Your task to perform on an android device: Clear the shopping cart on target.com. Search for jbl flip 4 on target.com, select the first entry, add it to the cart, then select checkout. Image 0: 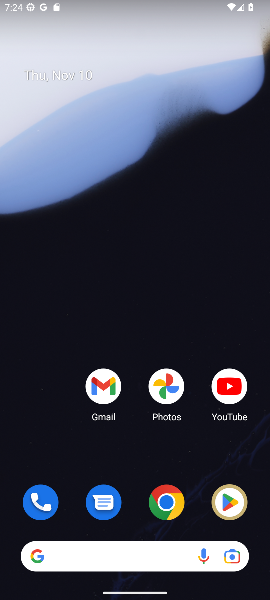
Step 0: click (97, 561)
Your task to perform on an android device: Clear the shopping cart on target.com. Search for jbl flip 4 on target.com, select the first entry, add it to the cart, then select checkout. Image 1: 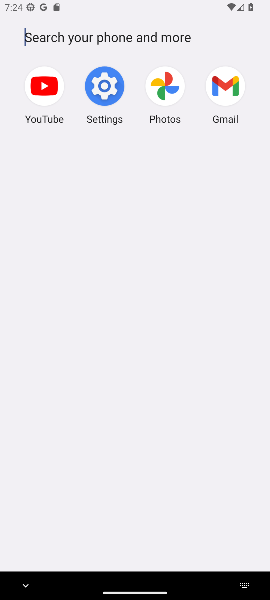
Step 1: press home button
Your task to perform on an android device: Clear the shopping cart on target.com. Search for jbl flip 4 on target.com, select the first entry, add it to the cart, then select checkout. Image 2: 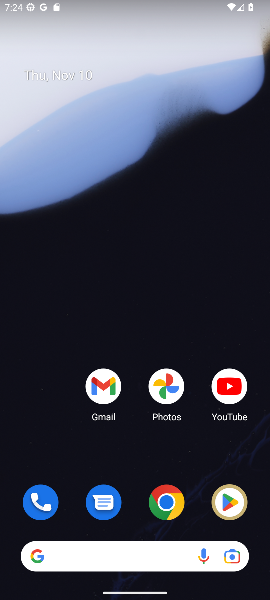
Step 2: drag from (130, 484) to (134, 99)
Your task to perform on an android device: Clear the shopping cart on target.com. Search for jbl flip 4 on target.com, select the first entry, add it to the cart, then select checkout. Image 3: 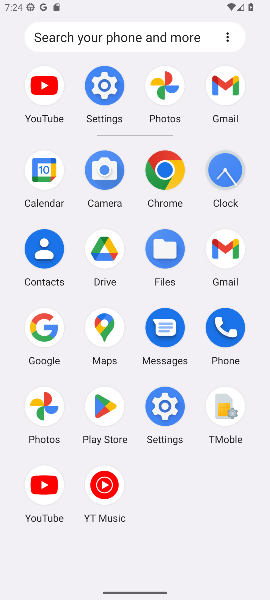
Step 3: click (38, 340)
Your task to perform on an android device: Clear the shopping cart on target.com. Search for jbl flip 4 on target.com, select the first entry, add it to the cart, then select checkout. Image 4: 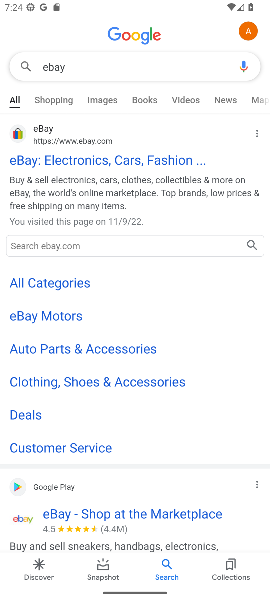
Step 4: click (92, 55)
Your task to perform on an android device: Clear the shopping cart on target.com. Search for jbl flip 4 on target.com, select the first entry, add it to the cart, then select checkout. Image 5: 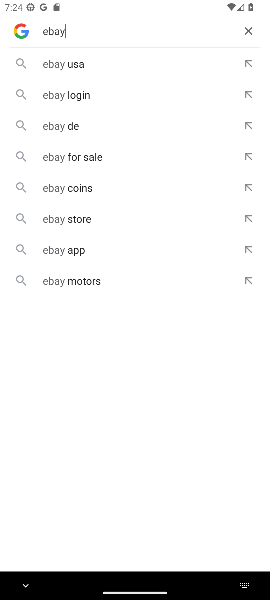
Step 5: click (249, 31)
Your task to perform on an android device: Clear the shopping cart on target.com. Search for jbl flip 4 on target.com, select the first entry, add it to the cart, then select checkout. Image 6: 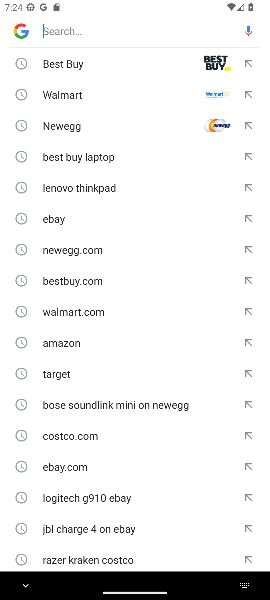
Step 6: type " target.com"
Your task to perform on an android device: Clear the shopping cart on target.com. Search for jbl flip 4 on target.com, select the first entry, add it to the cart, then select checkout. Image 7: 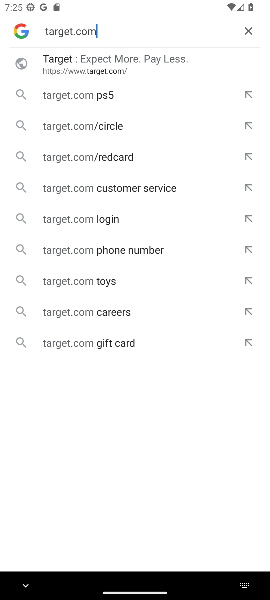
Step 7: click (96, 68)
Your task to perform on an android device: Clear the shopping cart on target.com. Search for jbl flip 4 on target.com, select the first entry, add it to the cart, then select checkout. Image 8: 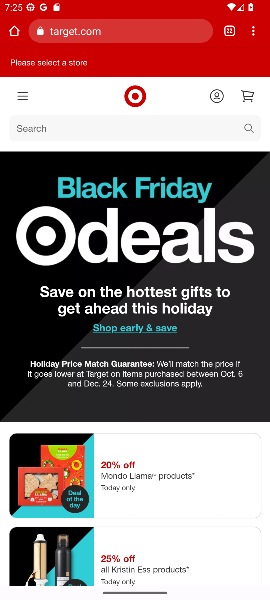
Step 8: click (81, 126)
Your task to perform on an android device: Clear the shopping cart on target.com. Search for jbl flip 4 on target.com, select the first entry, add it to the cart, then select checkout. Image 9: 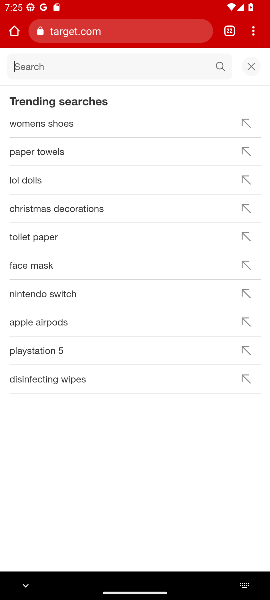
Step 9: press back button
Your task to perform on an android device: Clear the shopping cart on target.com. Search for jbl flip 4 on target.com, select the first entry, add it to the cart, then select checkout. Image 10: 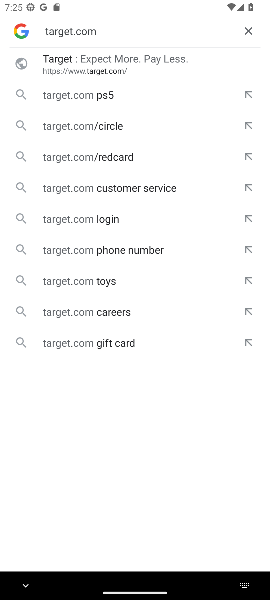
Step 10: click (94, 54)
Your task to perform on an android device: Clear the shopping cart on target.com. Search for jbl flip 4 on target.com, select the first entry, add it to the cart, then select checkout. Image 11: 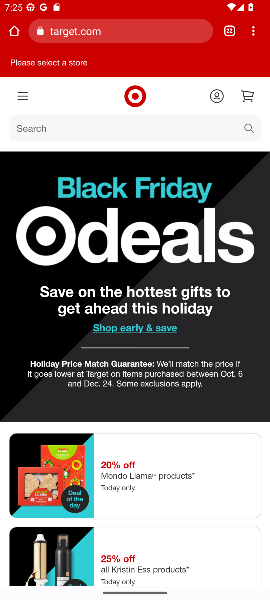
Step 11: click (247, 102)
Your task to perform on an android device: Clear the shopping cart on target.com. Search for jbl flip 4 on target.com, select the first entry, add it to the cart, then select checkout. Image 12: 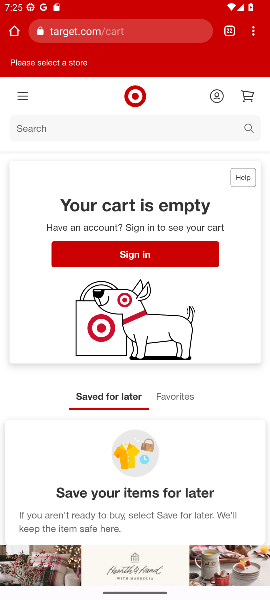
Step 12: click (181, 119)
Your task to perform on an android device: Clear the shopping cart on target.com. Search for jbl flip 4 on target.com, select the first entry, add it to the cart, then select checkout. Image 13: 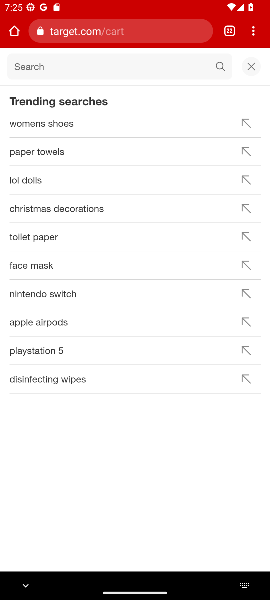
Step 13: type "jbl flip 4 "
Your task to perform on an android device: Clear the shopping cart on target.com. Search for jbl flip 4 on target.com, select the first entry, add it to the cart, then select checkout. Image 14: 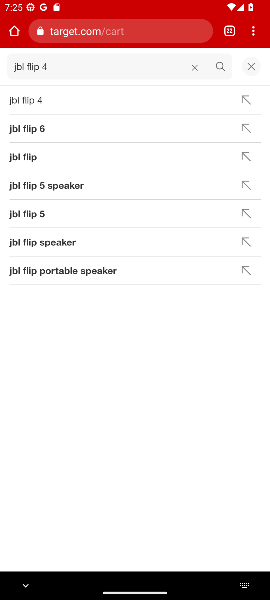
Step 14: click (26, 109)
Your task to perform on an android device: Clear the shopping cart on target.com. Search for jbl flip 4 on target.com, select the first entry, add it to the cart, then select checkout. Image 15: 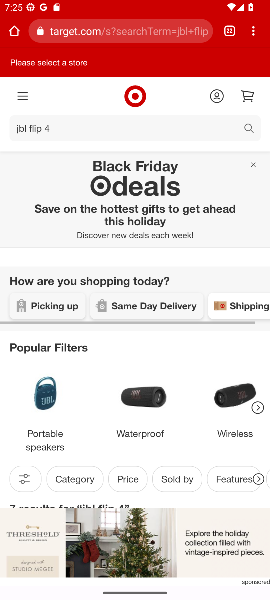
Step 15: drag from (116, 450) to (150, 309)
Your task to perform on an android device: Clear the shopping cart on target.com. Search for jbl flip 4 on target.com, select the first entry, add it to the cart, then select checkout. Image 16: 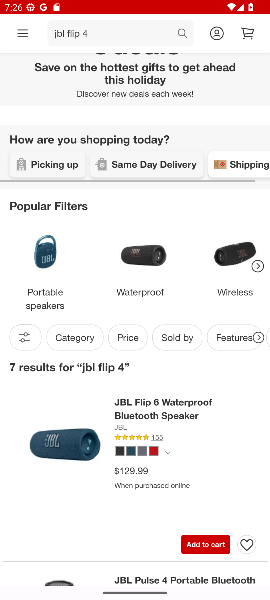
Step 16: click (207, 542)
Your task to perform on an android device: Clear the shopping cart on target.com. Search for jbl flip 4 on target.com, select the first entry, add it to the cart, then select checkout. Image 17: 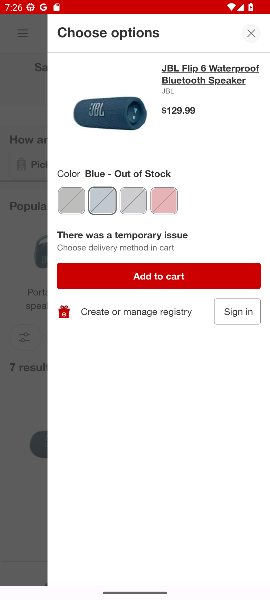
Step 17: click (157, 285)
Your task to perform on an android device: Clear the shopping cart on target.com. Search for jbl flip 4 on target.com, select the first entry, add it to the cart, then select checkout. Image 18: 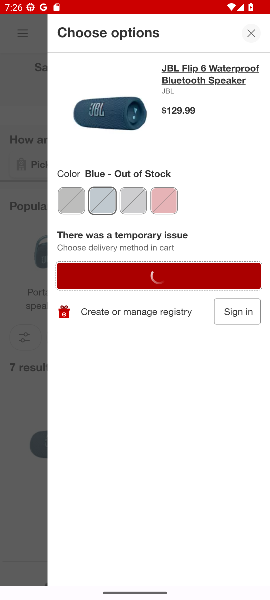
Step 18: click (250, 35)
Your task to perform on an android device: Clear the shopping cart on target.com. Search for jbl flip 4 on target.com, select the first entry, add it to the cart, then select checkout. Image 19: 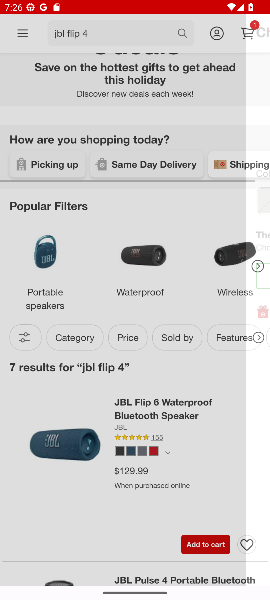
Step 19: click (243, 32)
Your task to perform on an android device: Clear the shopping cart on target.com. Search for jbl flip 4 on target.com, select the first entry, add it to the cart, then select checkout. Image 20: 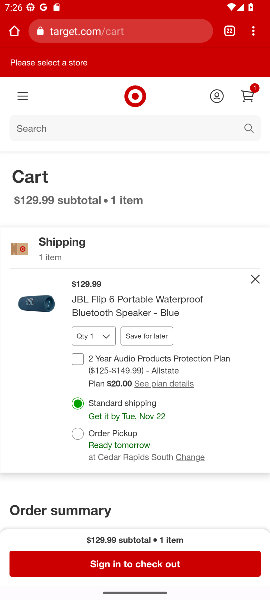
Step 20: click (114, 564)
Your task to perform on an android device: Clear the shopping cart on target.com. Search for jbl flip 4 on target.com, select the first entry, add it to the cart, then select checkout. Image 21: 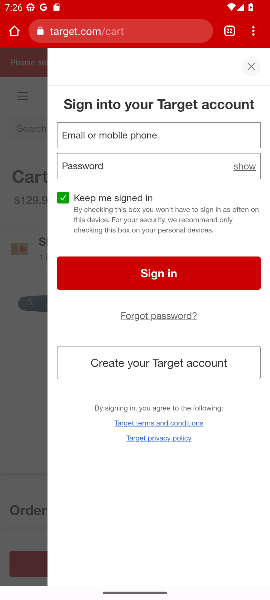
Step 21: task complete